Your task to perform on an android device: Show me recent news Image 0: 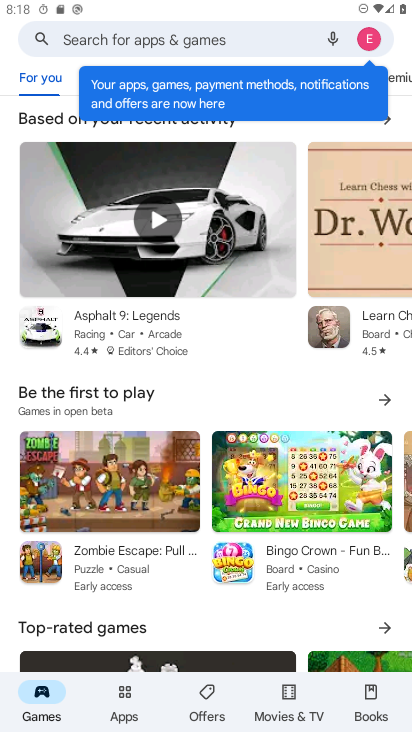
Step 0: press home button
Your task to perform on an android device: Show me recent news Image 1: 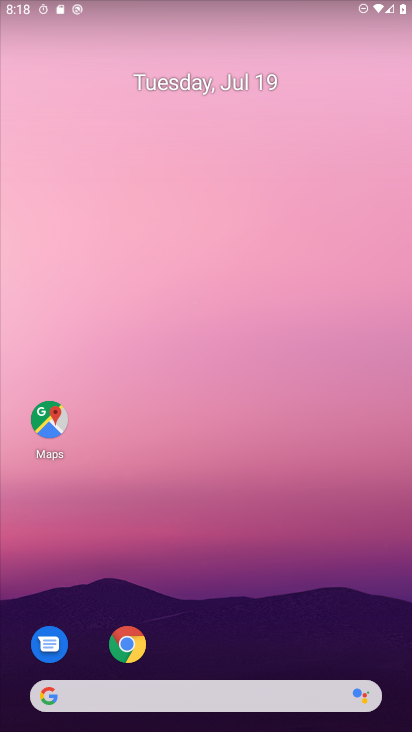
Step 1: click (83, 685)
Your task to perform on an android device: Show me recent news Image 2: 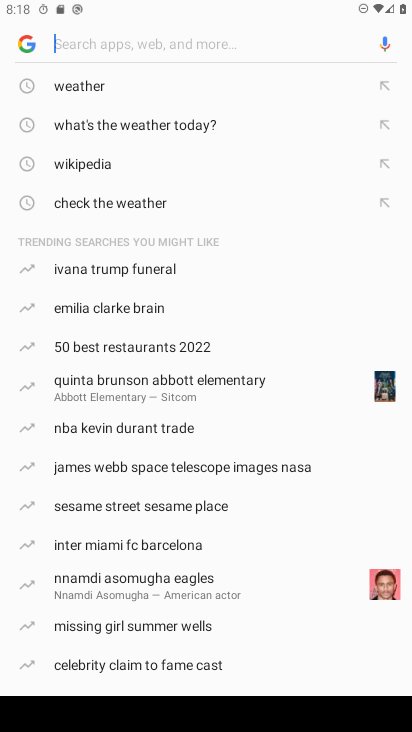
Step 2: type " recent news"
Your task to perform on an android device: Show me recent news Image 3: 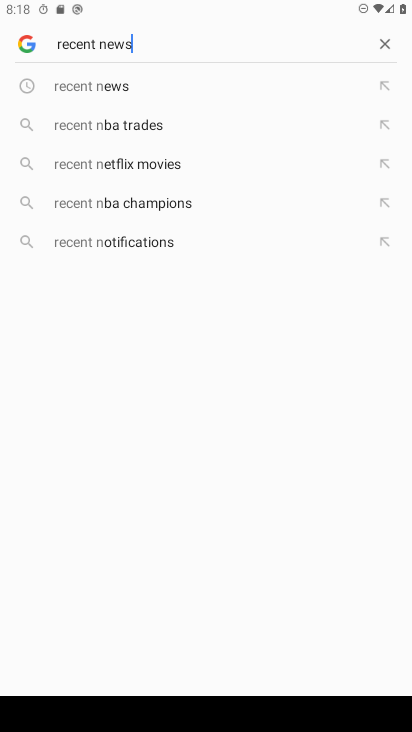
Step 3: type ""
Your task to perform on an android device: Show me recent news Image 4: 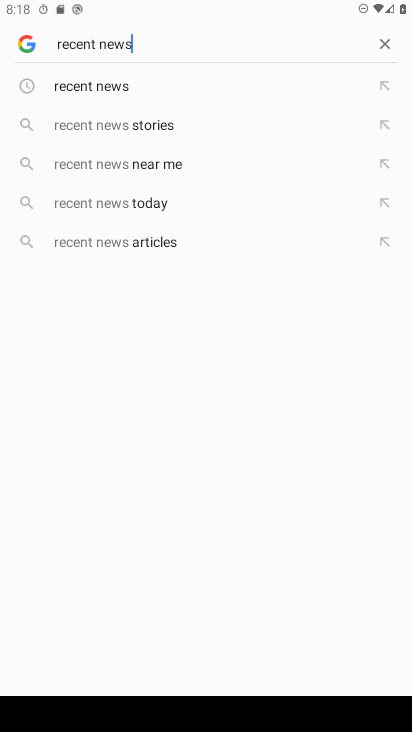
Step 4: click (75, 81)
Your task to perform on an android device: Show me recent news Image 5: 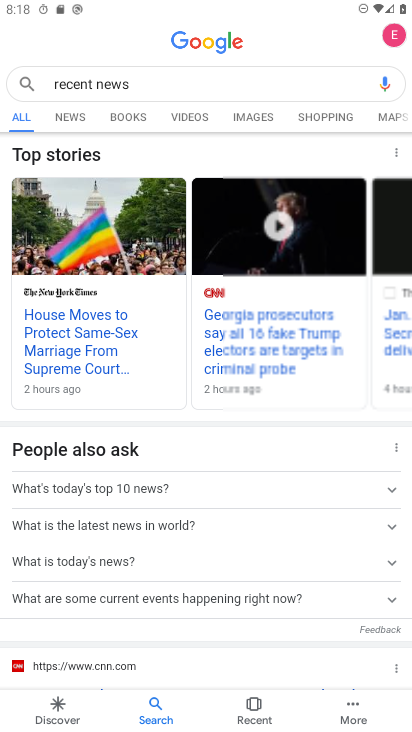
Step 5: task complete